Your task to perform on an android device: turn pop-ups on in chrome Image 0: 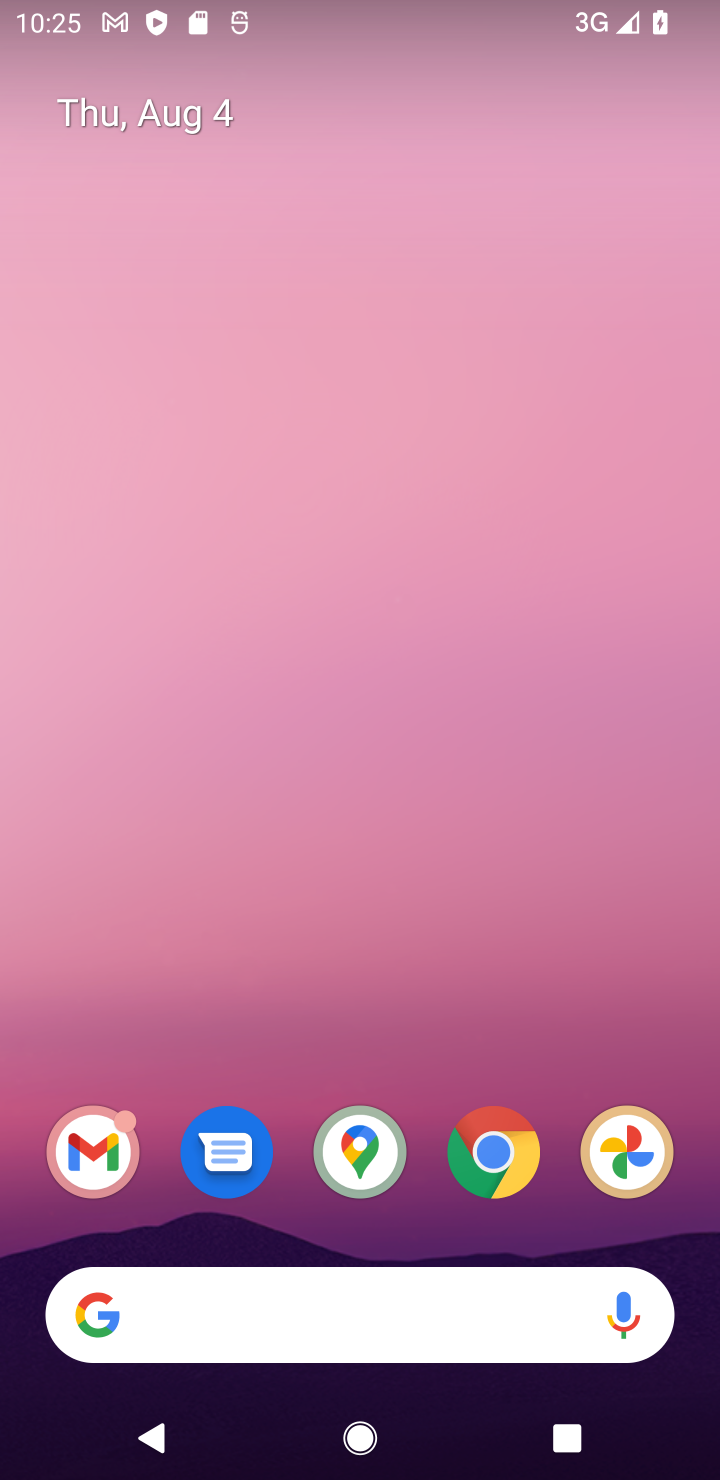
Step 0: click (478, 1169)
Your task to perform on an android device: turn pop-ups on in chrome Image 1: 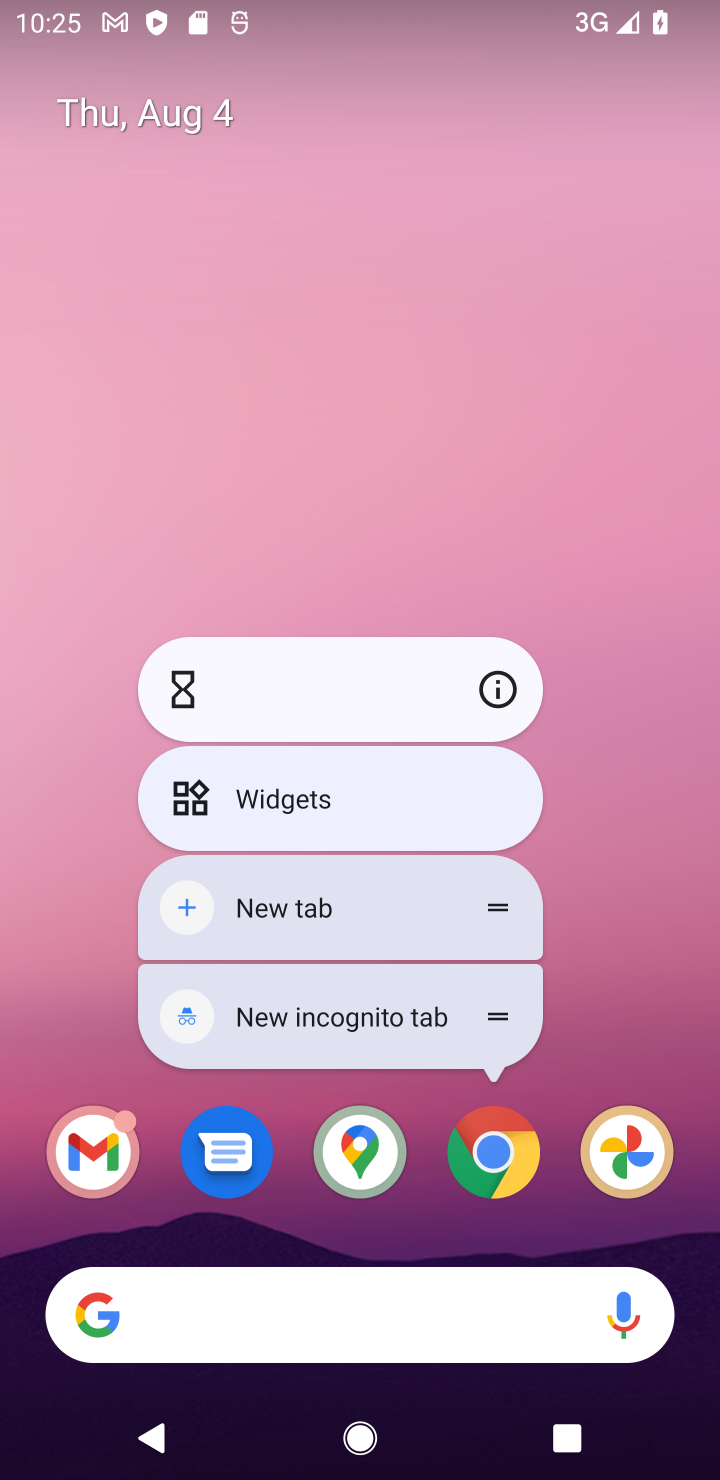
Step 1: click (496, 1130)
Your task to perform on an android device: turn pop-ups on in chrome Image 2: 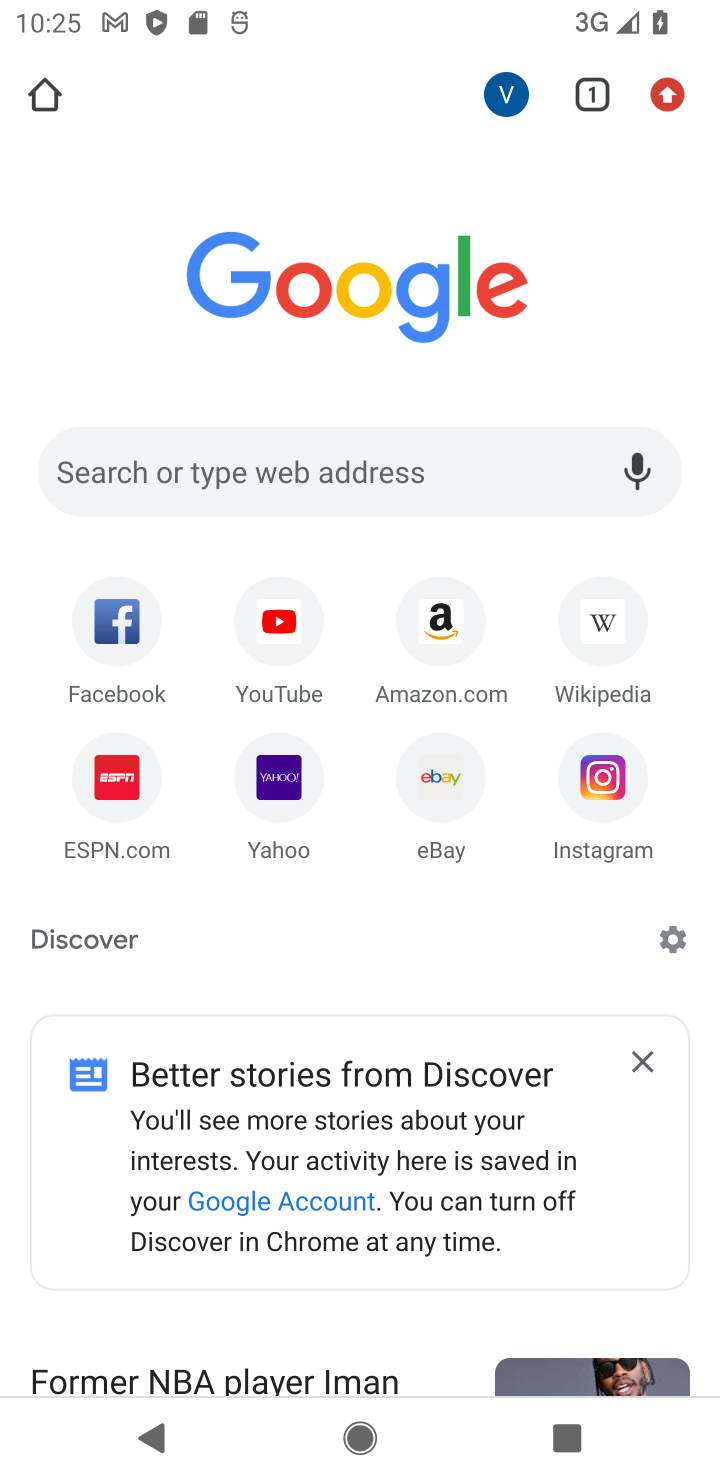
Step 2: click (670, 88)
Your task to perform on an android device: turn pop-ups on in chrome Image 3: 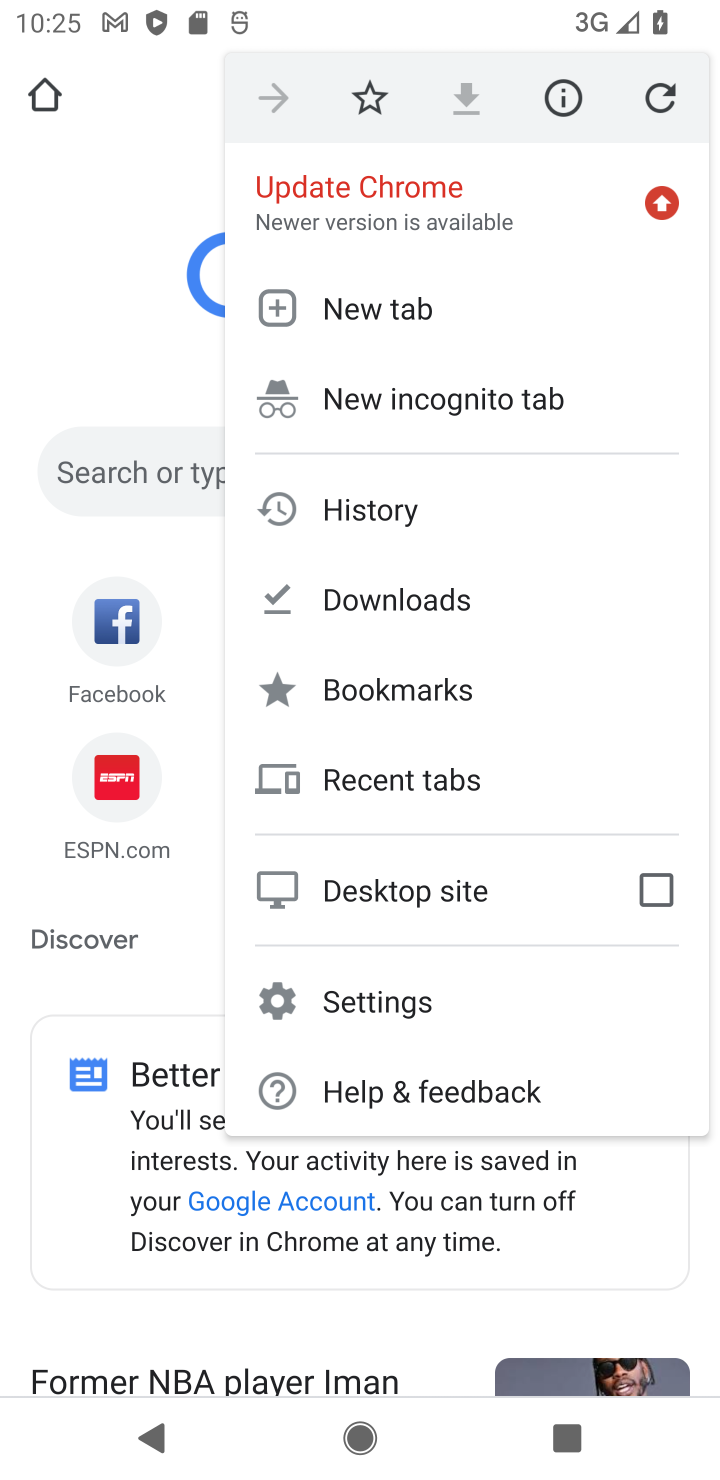
Step 3: click (380, 1000)
Your task to perform on an android device: turn pop-ups on in chrome Image 4: 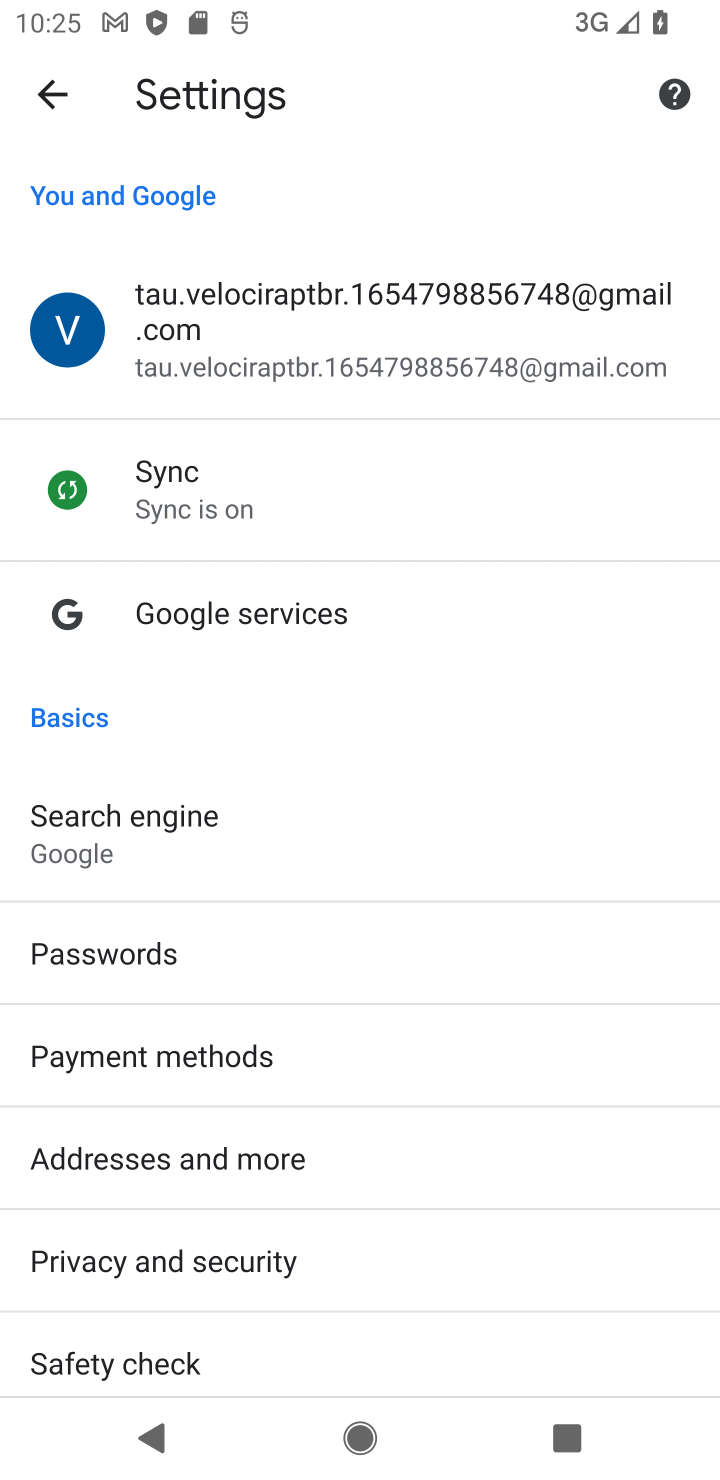
Step 4: drag from (207, 1084) to (323, 507)
Your task to perform on an android device: turn pop-ups on in chrome Image 5: 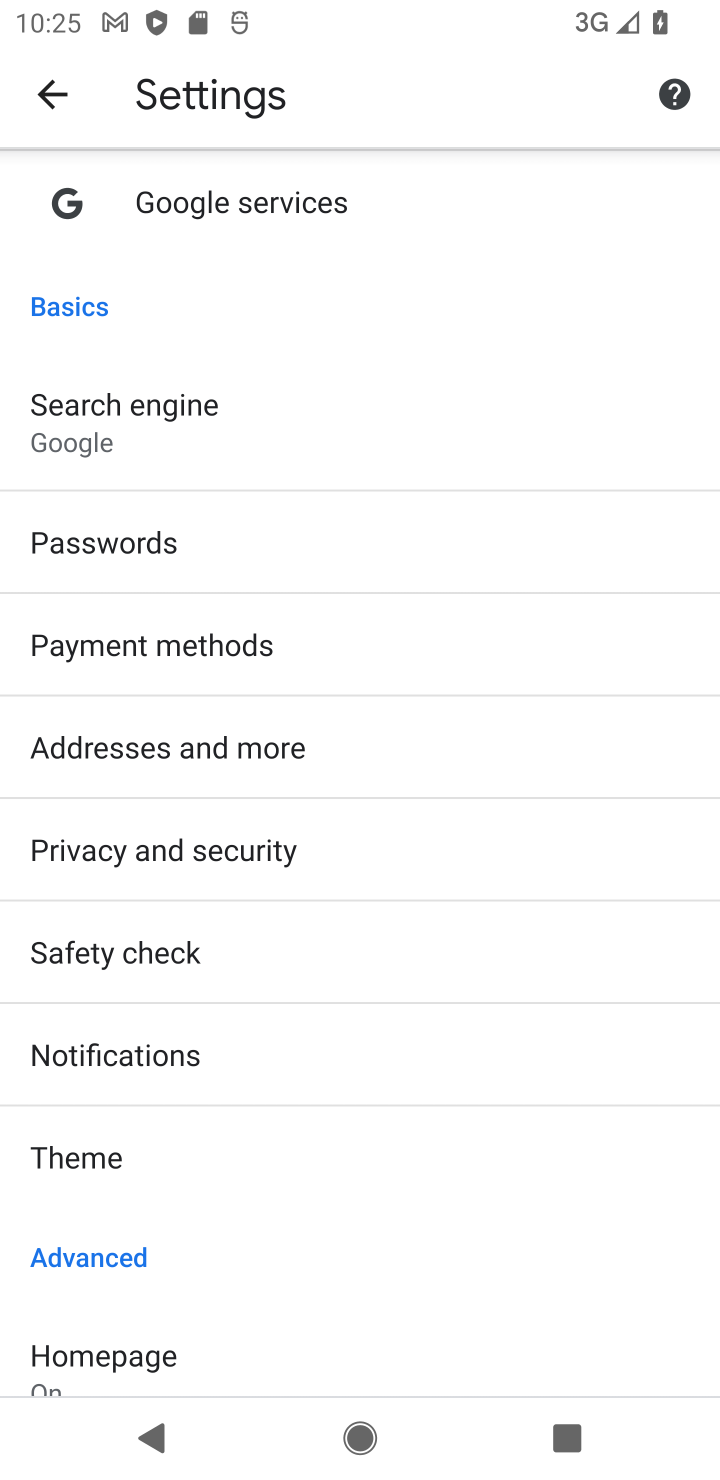
Step 5: drag from (198, 1043) to (356, 320)
Your task to perform on an android device: turn pop-ups on in chrome Image 6: 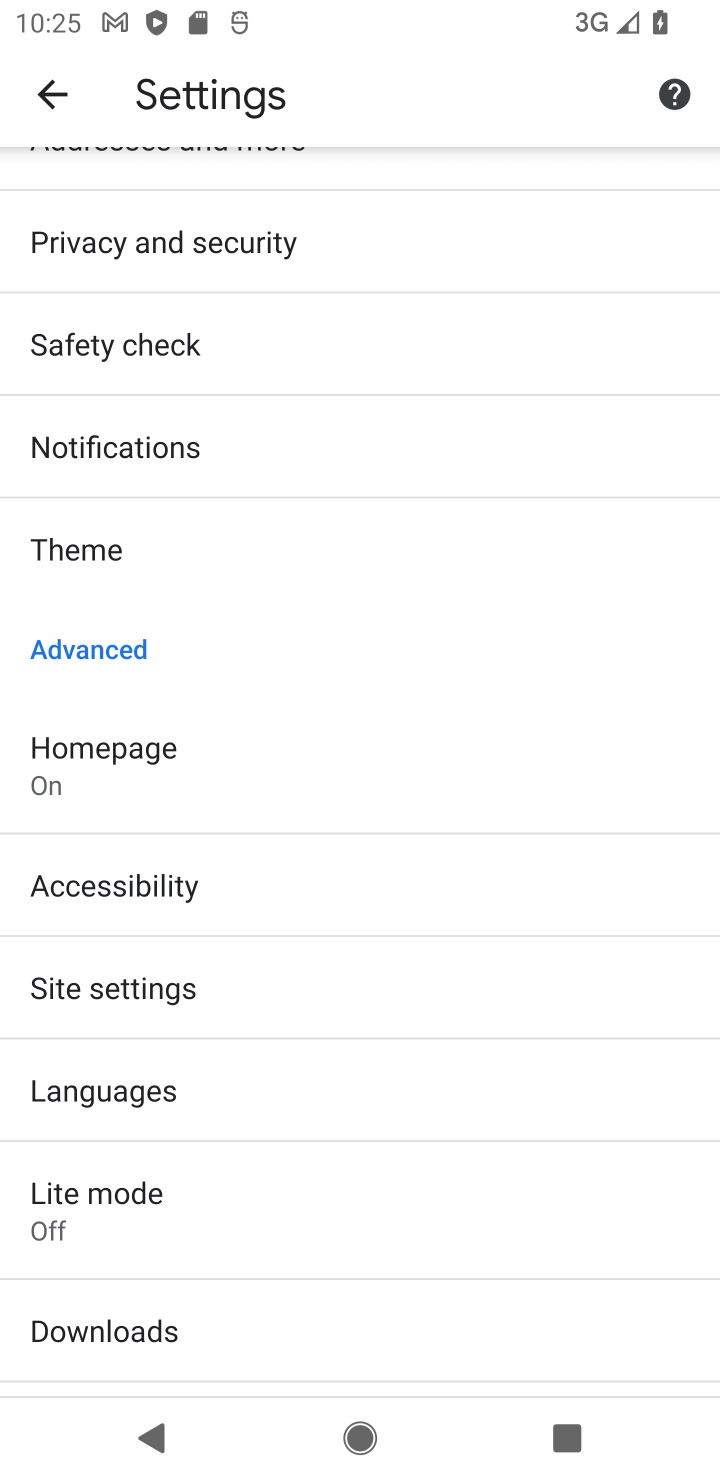
Step 6: click (184, 995)
Your task to perform on an android device: turn pop-ups on in chrome Image 7: 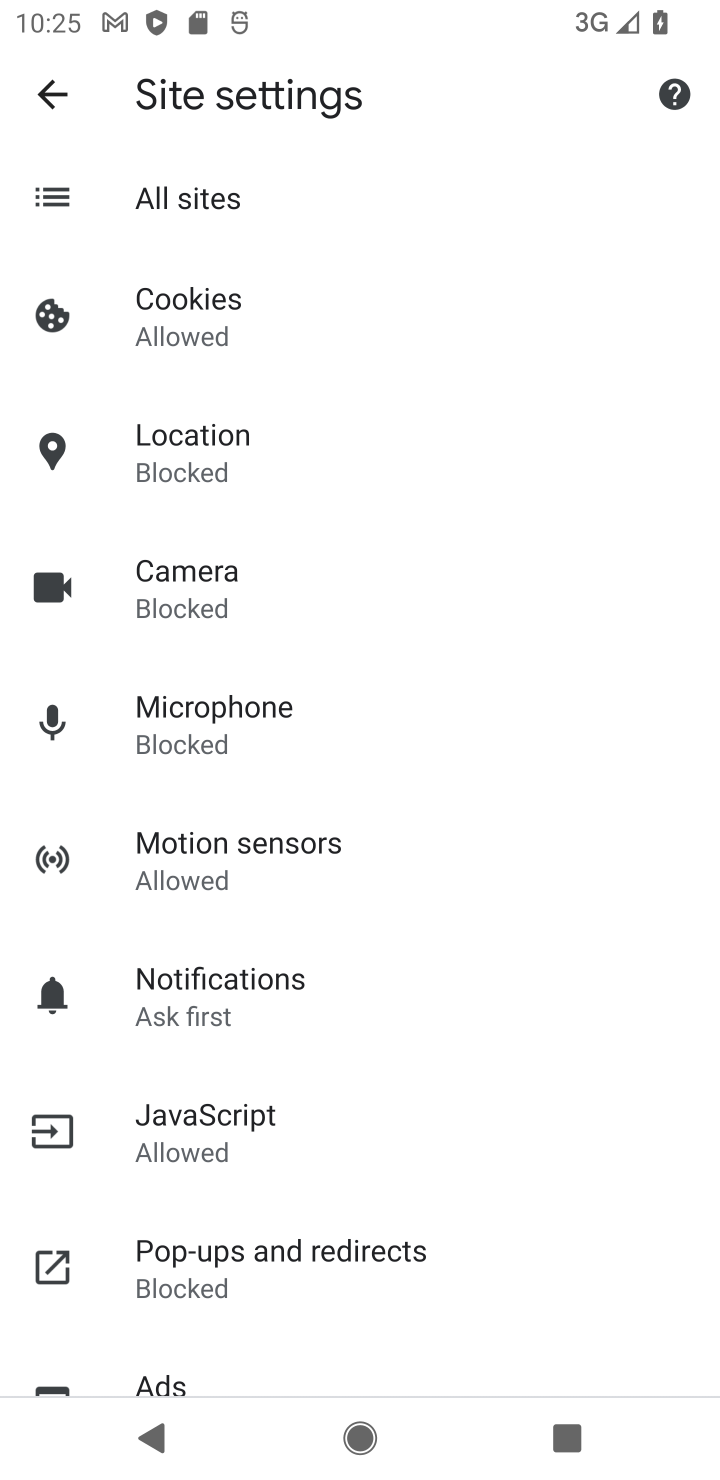
Step 7: click (209, 1242)
Your task to perform on an android device: turn pop-ups on in chrome Image 8: 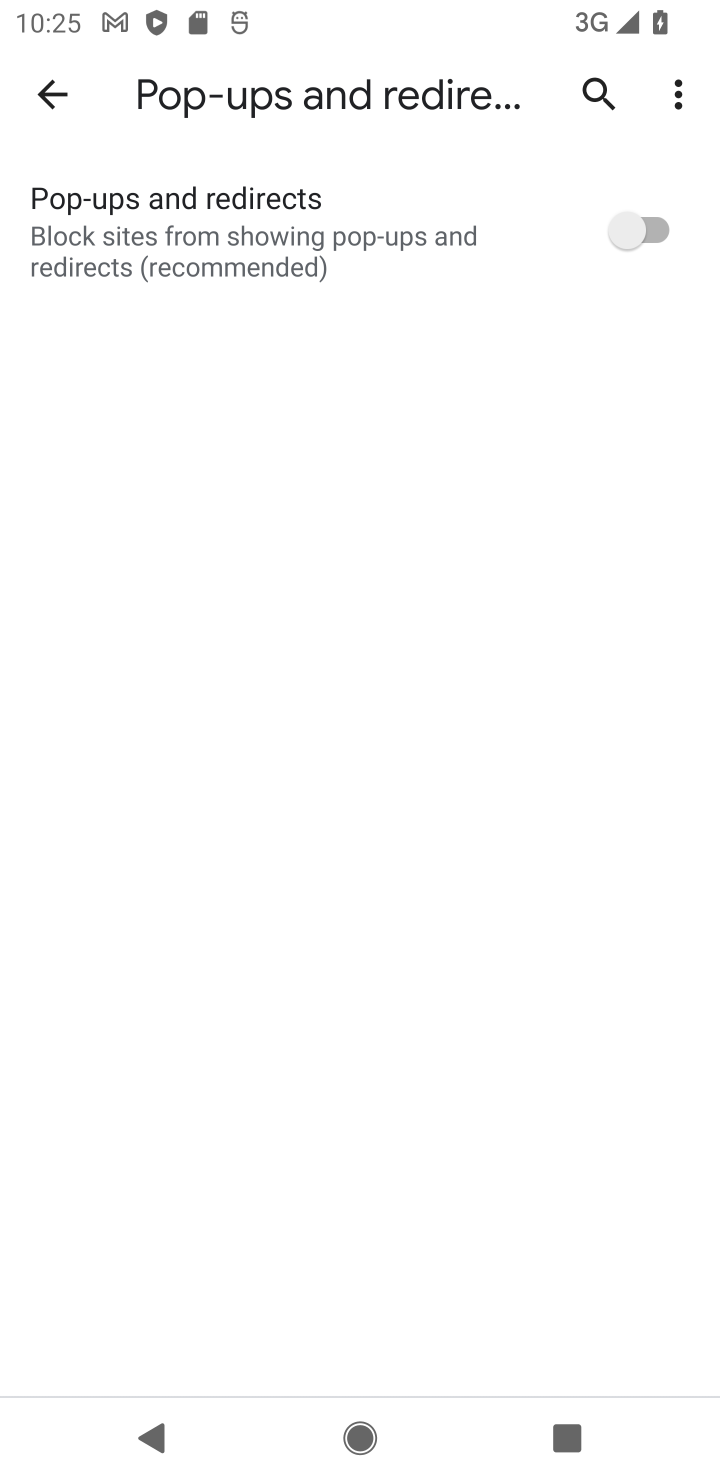
Step 8: click (572, 227)
Your task to perform on an android device: turn pop-ups on in chrome Image 9: 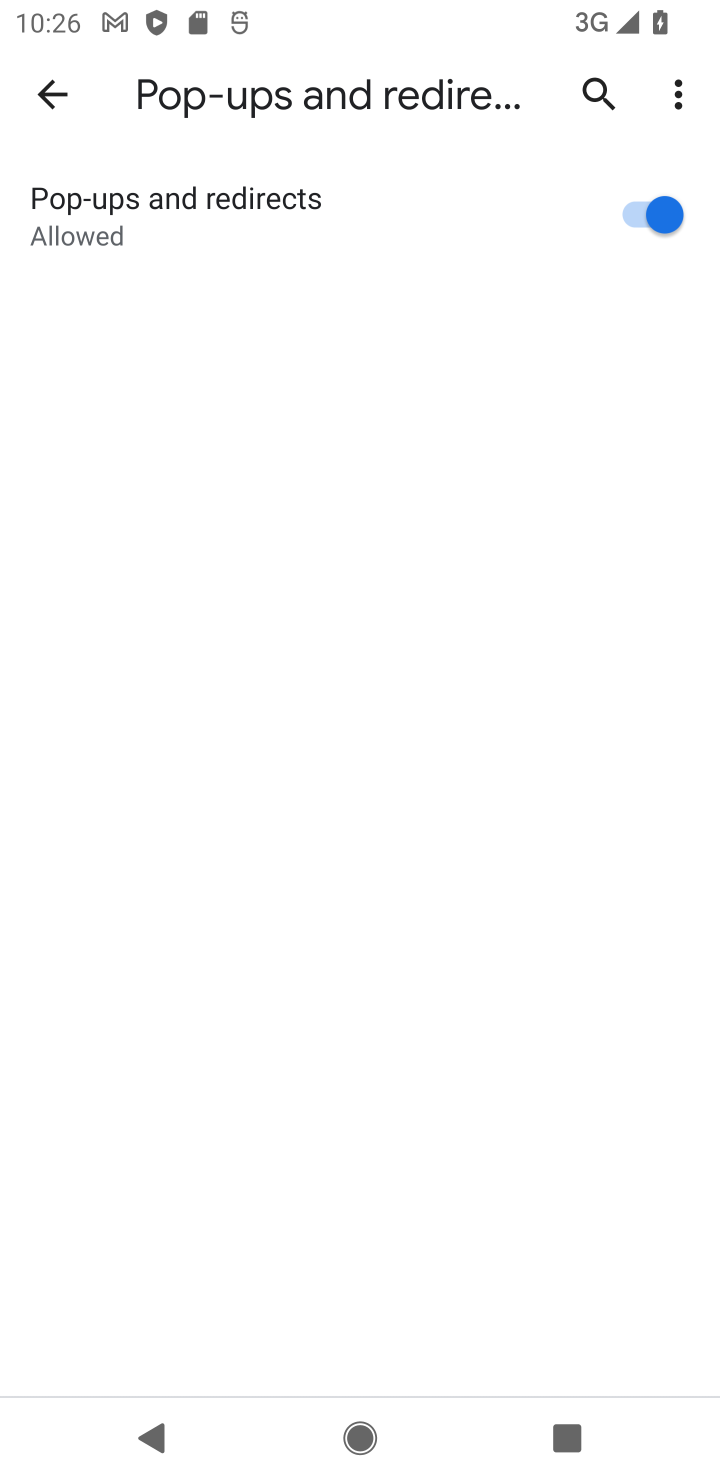
Step 9: task complete